Your task to perform on an android device: Open settings on Google Maps Image 0: 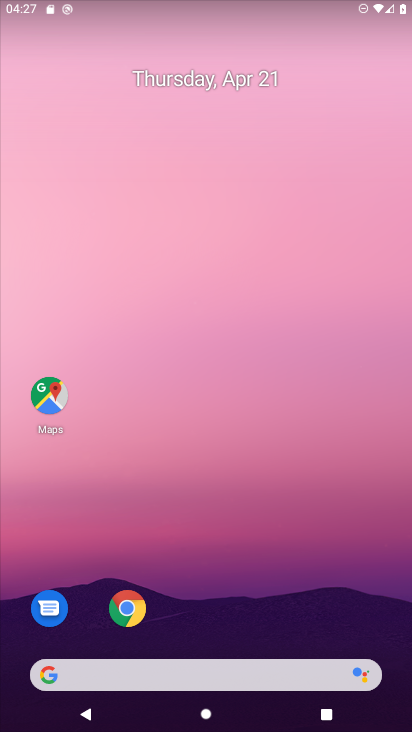
Step 0: click (321, 660)
Your task to perform on an android device: Open settings on Google Maps Image 1: 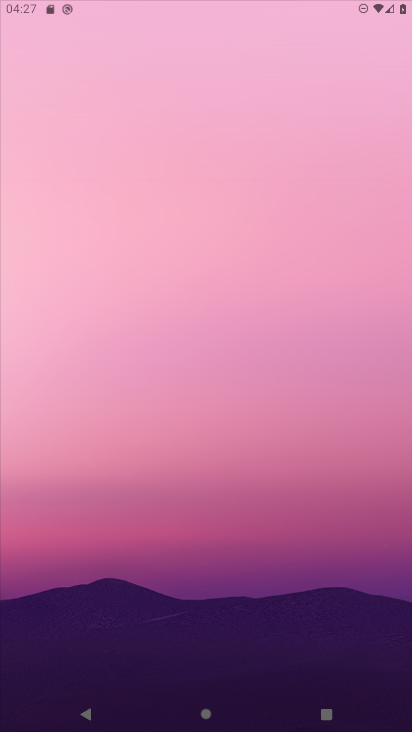
Step 1: drag from (258, 391) to (250, 232)
Your task to perform on an android device: Open settings on Google Maps Image 2: 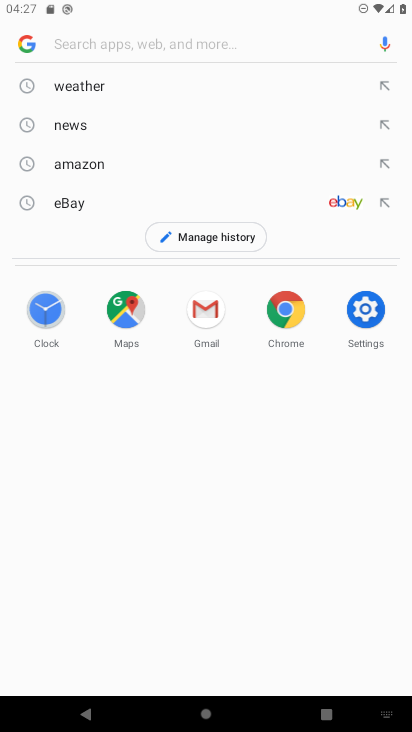
Step 2: press home button
Your task to perform on an android device: Open settings on Google Maps Image 3: 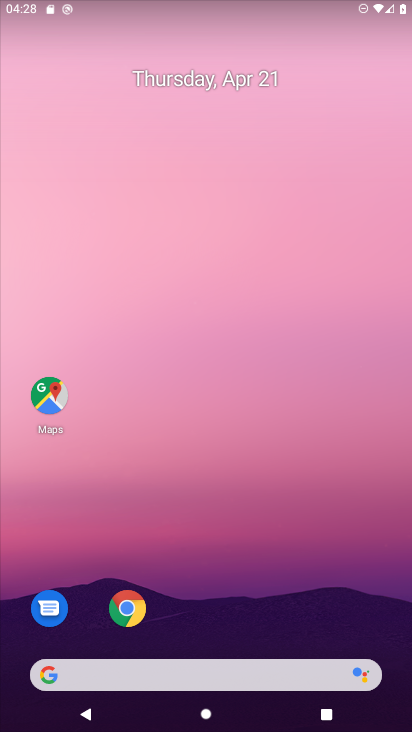
Step 3: drag from (225, 565) to (236, 218)
Your task to perform on an android device: Open settings on Google Maps Image 4: 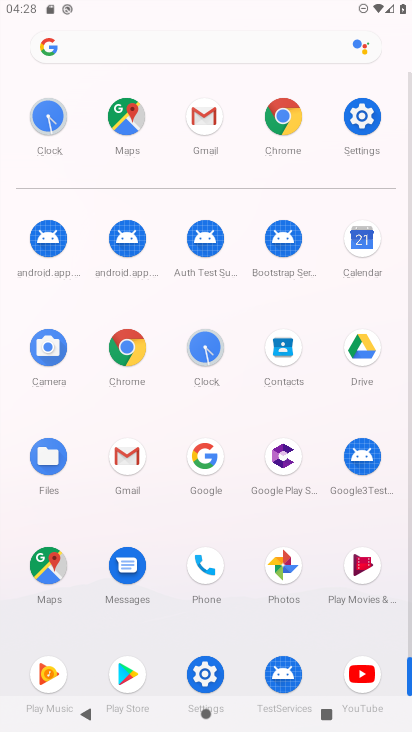
Step 4: click (51, 557)
Your task to perform on an android device: Open settings on Google Maps Image 5: 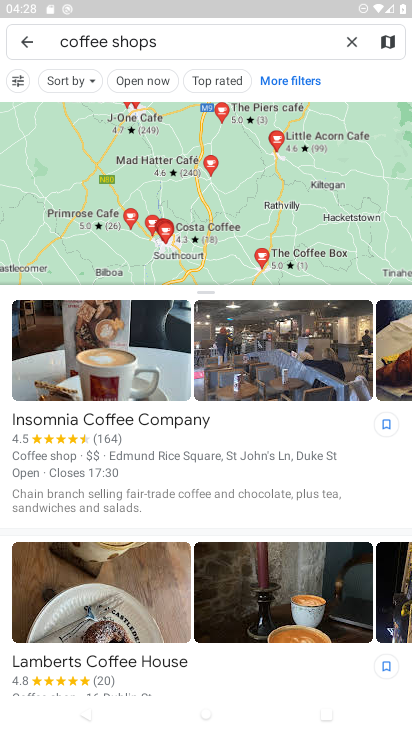
Step 5: click (350, 44)
Your task to perform on an android device: Open settings on Google Maps Image 6: 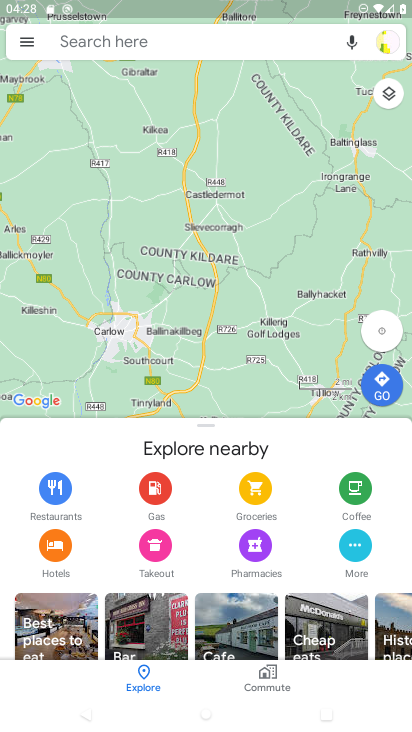
Step 6: click (20, 39)
Your task to perform on an android device: Open settings on Google Maps Image 7: 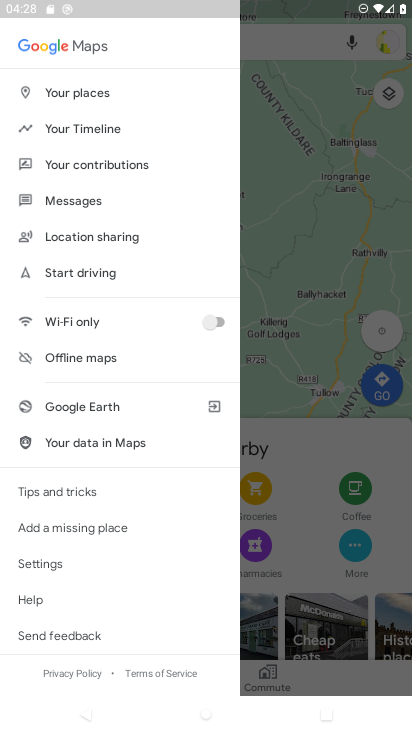
Step 7: click (63, 560)
Your task to perform on an android device: Open settings on Google Maps Image 8: 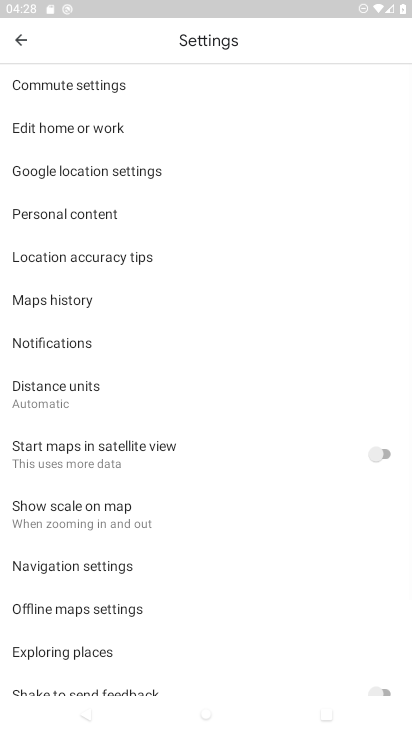
Step 8: drag from (200, 576) to (269, 28)
Your task to perform on an android device: Open settings on Google Maps Image 9: 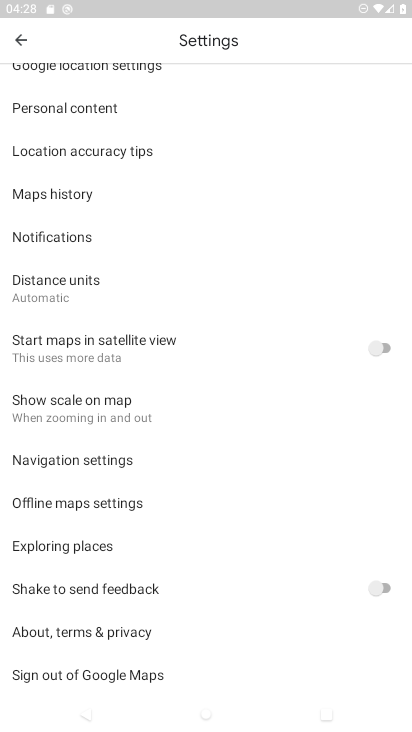
Step 9: click (118, 229)
Your task to perform on an android device: Open settings on Google Maps Image 10: 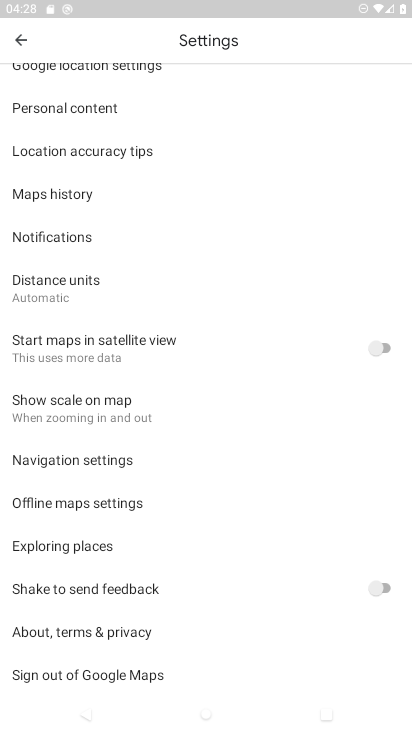
Step 10: task complete